Your task to perform on an android device: Search for vegetarian restaurants on Maps Image 0: 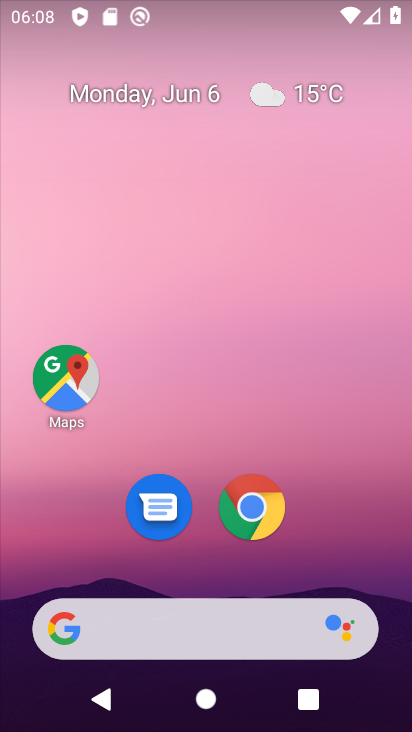
Step 0: click (69, 381)
Your task to perform on an android device: Search for vegetarian restaurants on Maps Image 1: 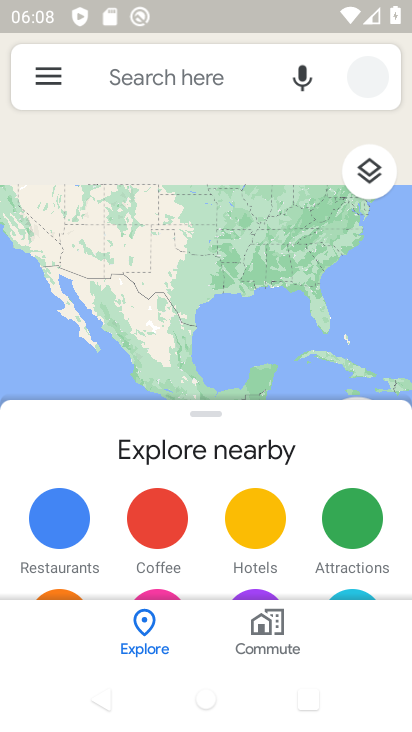
Step 1: click (175, 75)
Your task to perform on an android device: Search for vegetarian restaurants on Maps Image 2: 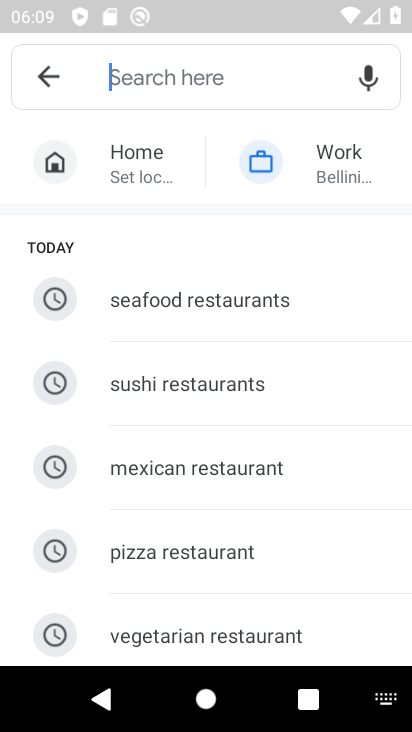
Step 2: click (212, 643)
Your task to perform on an android device: Search for vegetarian restaurants on Maps Image 3: 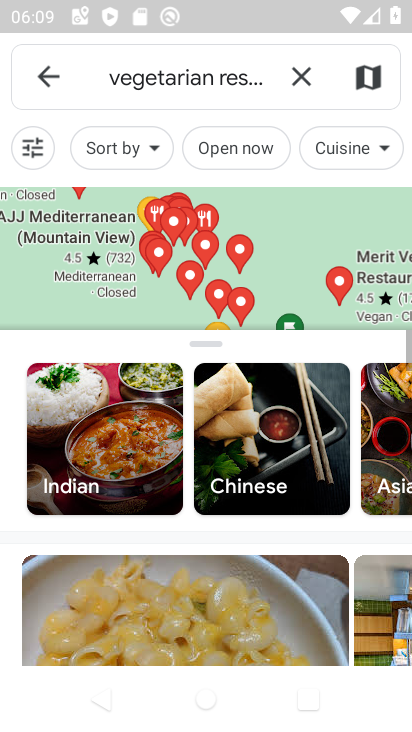
Step 3: task complete